Your task to perform on an android device: Open calendar and show me the first week of next month Image 0: 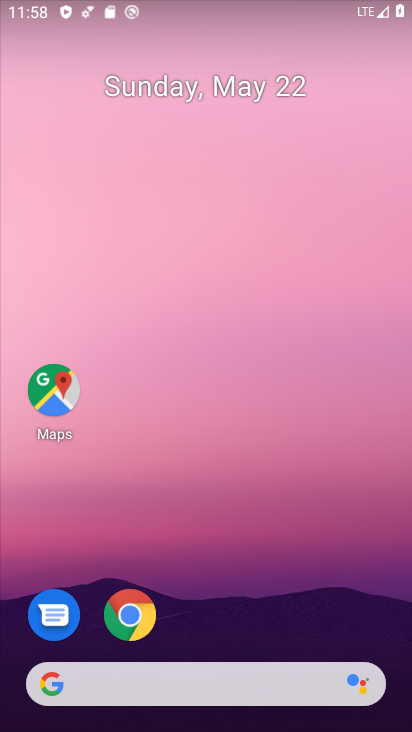
Step 0: drag from (220, 539) to (296, 65)
Your task to perform on an android device: Open calendar and show me the first week of next month Image 1: 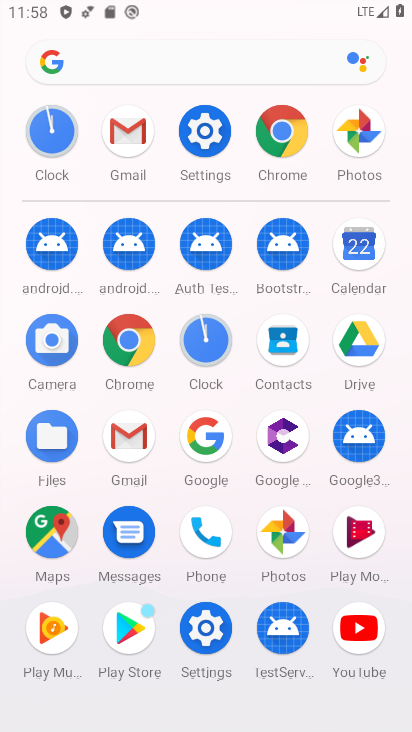
Step 1: click (361, 254)
Your task to perform on an android device: Open calendar and show me the first week of next month Image 2: 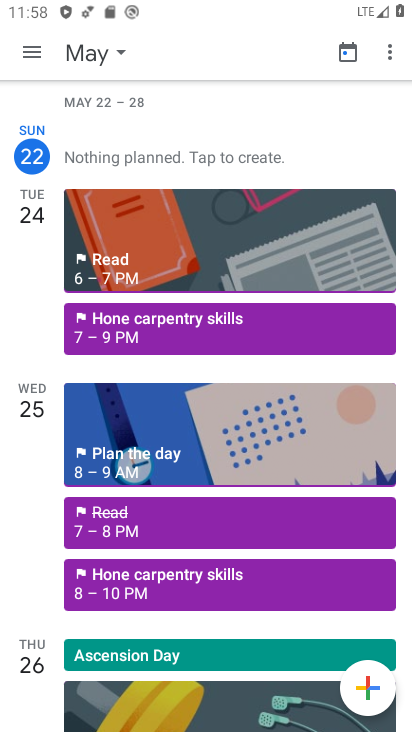
Step 2: click (113, 55)
Your task to perform on an android device: Open calendar and show me the first week of next month Image 3: 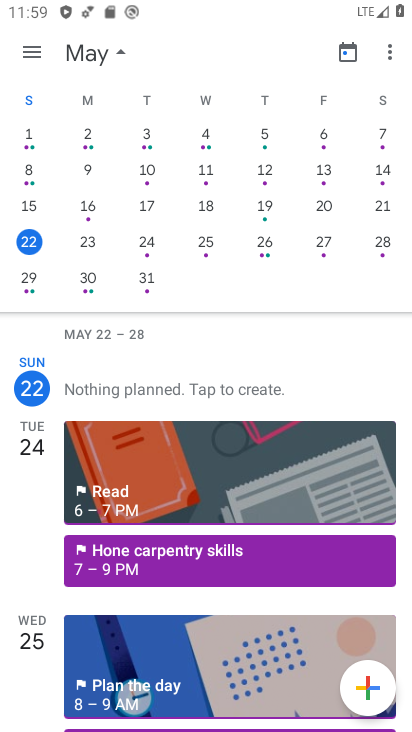
Step 3: drag from (379, 202) to (20, 204)
Your task to perform on an android device: Open calendar and show me the first week of next month Image 4: 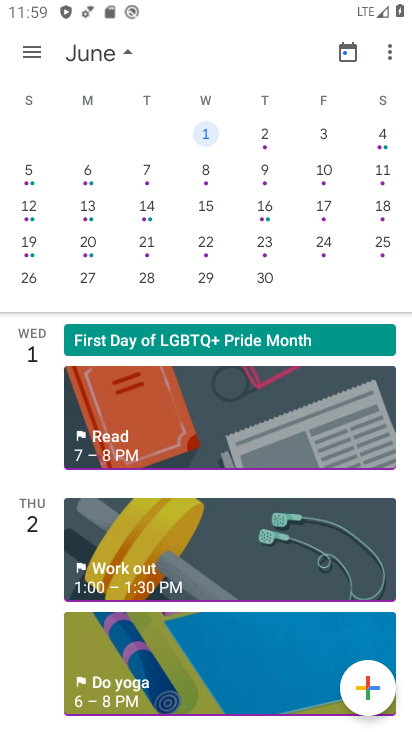
Step 4: drag from (31, 196) to (381, 191)
Your task to perform on an android device: Open calendar and show me the first week of next month Image 5: 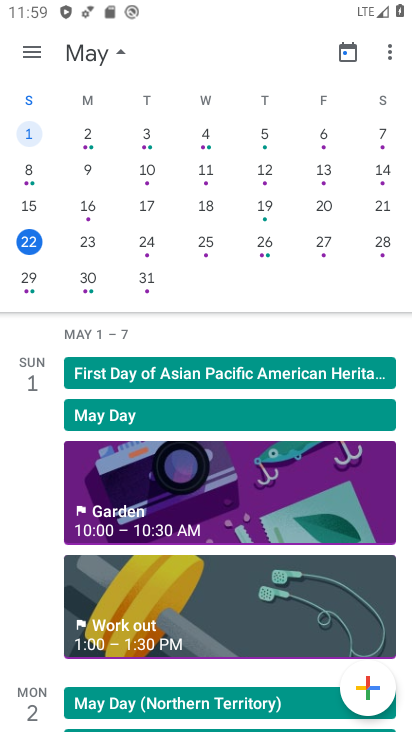
Step 5: drag from (335, 206) to (31, 157)
Your task to perform on an android device: Open calendar and show me the first week of next month Image 6: 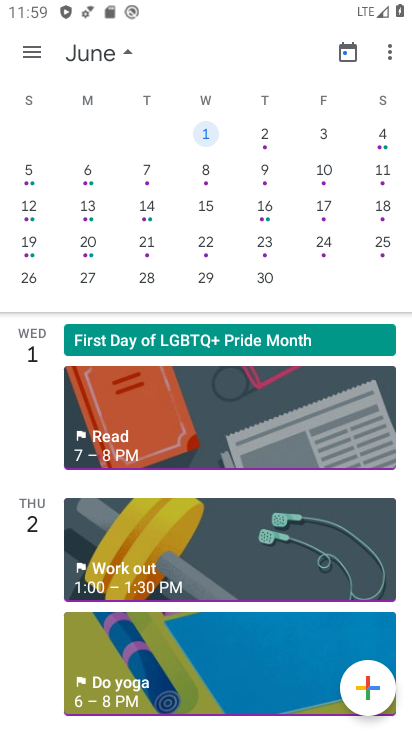
Step 6: click (212, 133)
Your task to perform on an android device: Open calendar and show me the first week of next month Image 7: 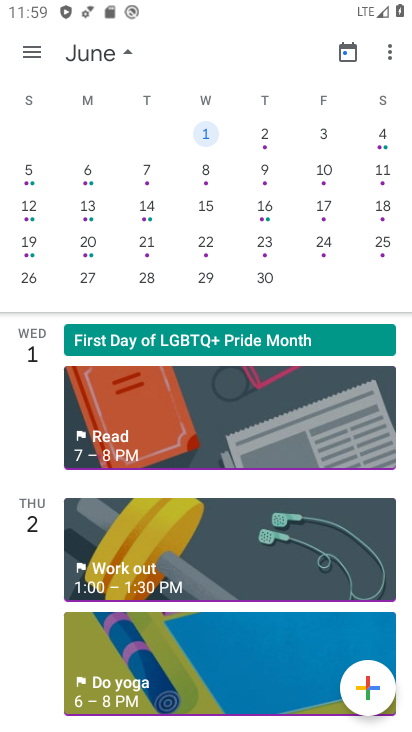
Step 7: task complete